Your task to perform on an android device: See recent photos Image 0: 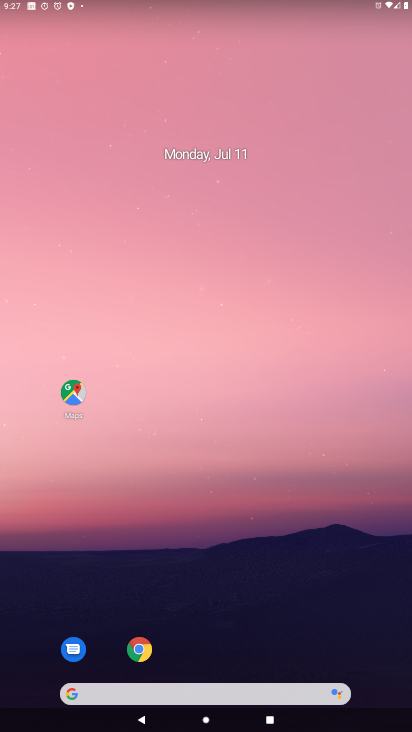
Step 0: drag from (205, 699) to (215, 95)
Your task to perform on an android device: See recent photos Image 1: 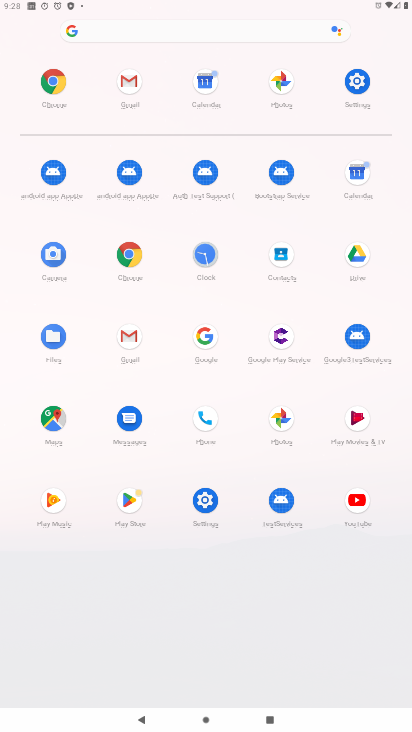
Step 1: click (282, 85)
Your task to perform on an android device: See recent photos Image 2: 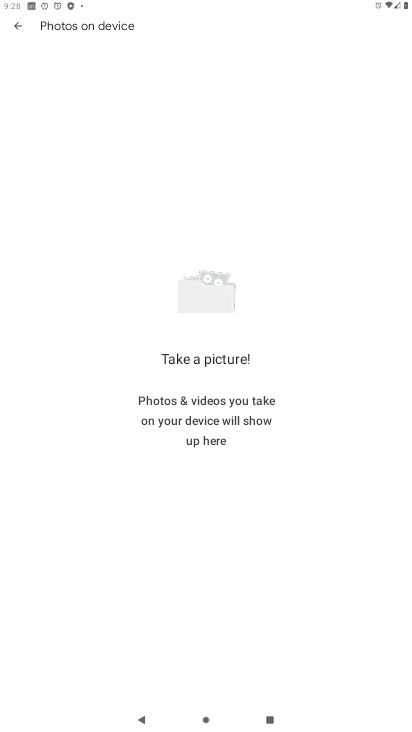
Step 2: press back button
Your task to perform on an android device: See recent photos Image 3: 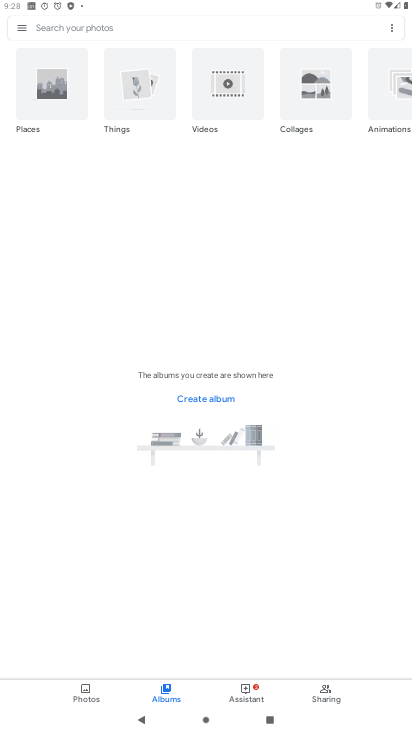
Step 3: click (83, 697)
Your task to perform on an android device: See recent photos Image 4: 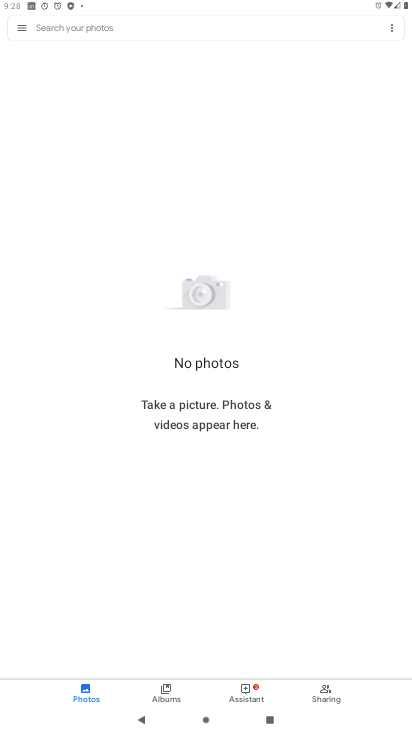
Step 4: click (165, 694)
Your task to perform on an android device: See recent photos Image 5: 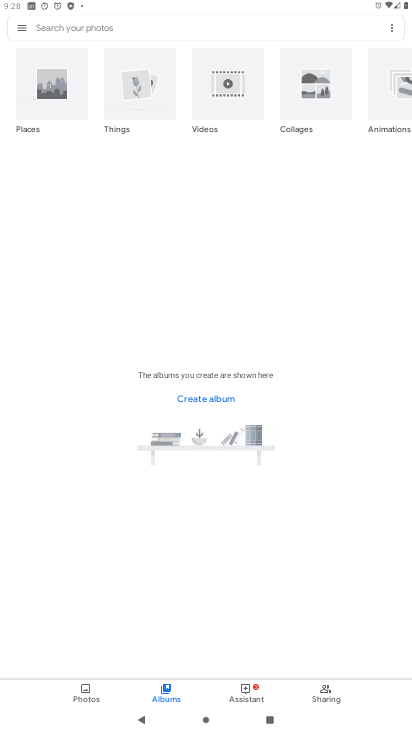
Step 5: click (238, 696)
Your task to perform on an android device: See recent photos Image 6: 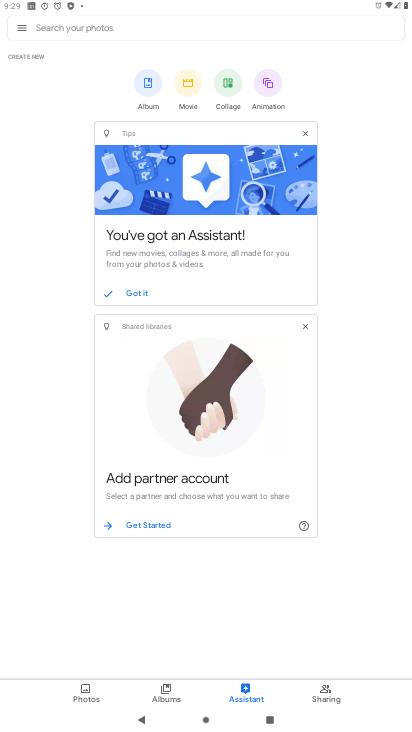
Step 6: click (77, 695)
Your task to perform on an android device: See recent photos Image 7: 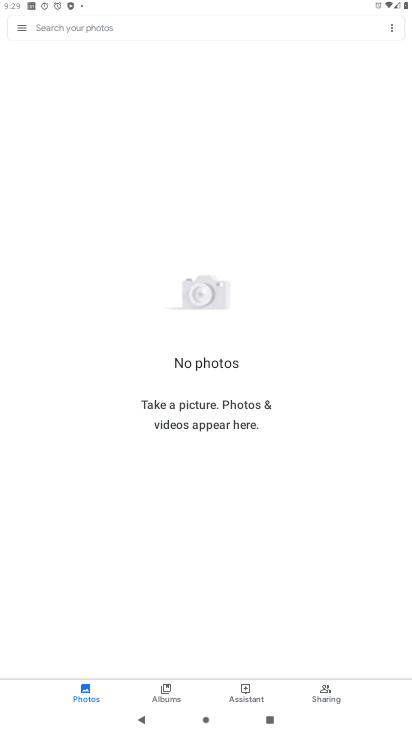
Step 7: click (323, 693)
Your task to perform on an android device: See recent photos Image 8: 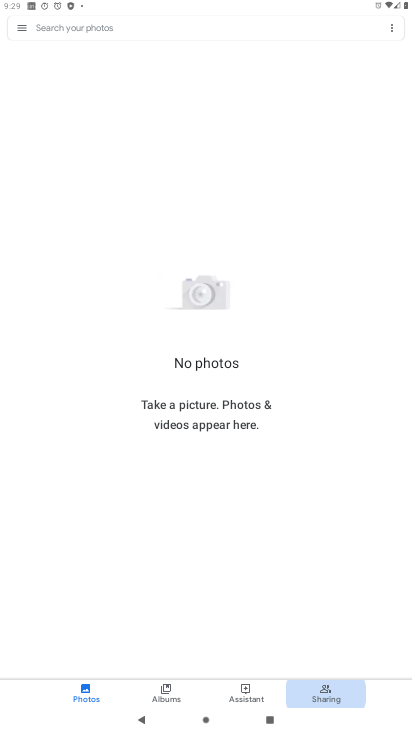
Step 8: click (323, 693)
Your task to perform on an android device: See recent photos Image 9: 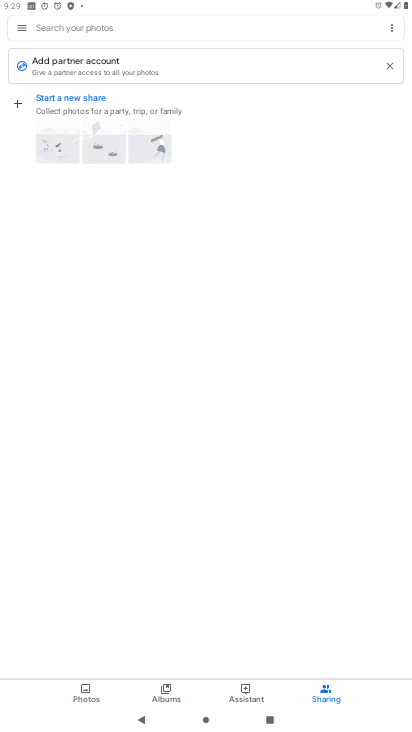
Step 9: click (247, 694)
Your task to perform on an android device: See recent photos Image 10: 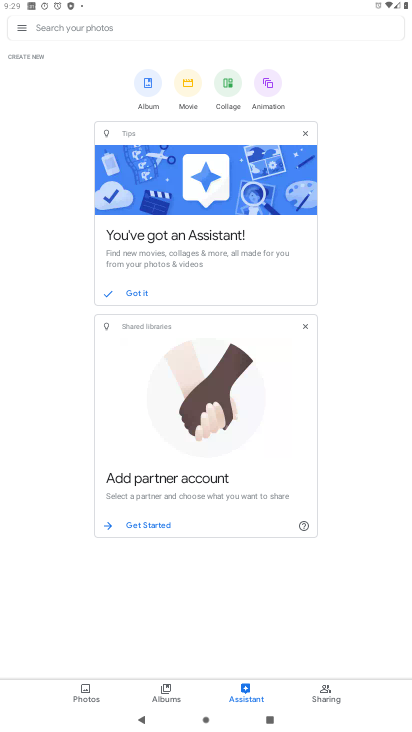
Step 10: task complete